Your task to perform on an android device: turn on notifications settings in the gmail app Image 0: 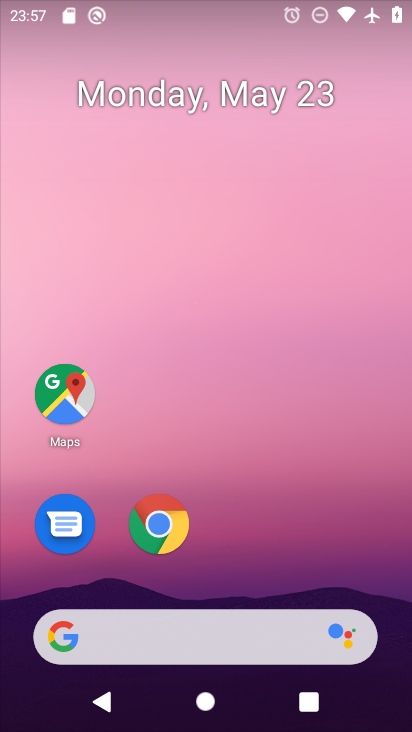
Step 0: drag from (198, 569) to (197, 171)
Your task to perform on an android device: turn on notifications settings in the gmail app Image 1: 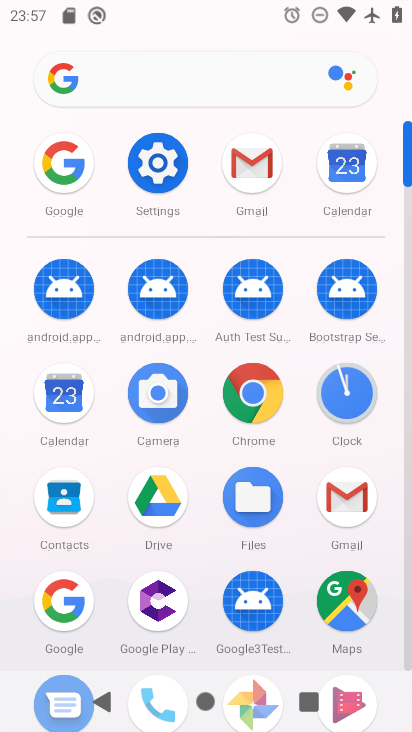
Step 1: click (264, 173)
Your task to perform on an android device: turn on notifications settings in the gmail app Image 2: 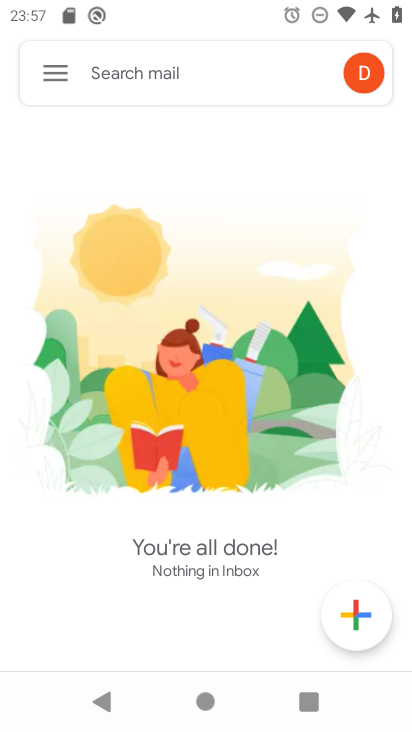
Step 2: click (56, 78)
Your task to perform on an android device: turn on notifications settings in the gmail app Image 3: 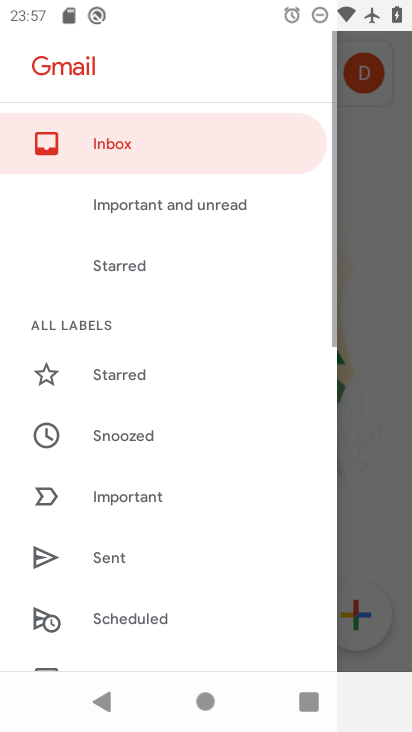
Step 3: drag from (179, 577) to (181, 185)
Your task to perform on an android device: turn on notifications settings in the gmail app Image 4: 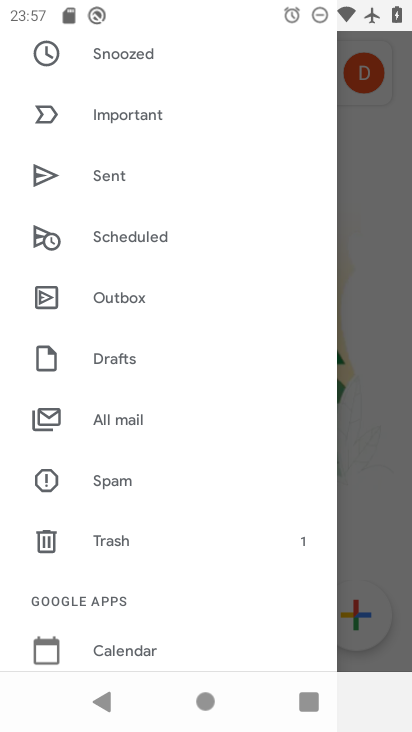
Step 4: drag from (156, 609) to (162, 234)
Your task to perform on an android device: turn on notifications settings in the gmail app Image 5: 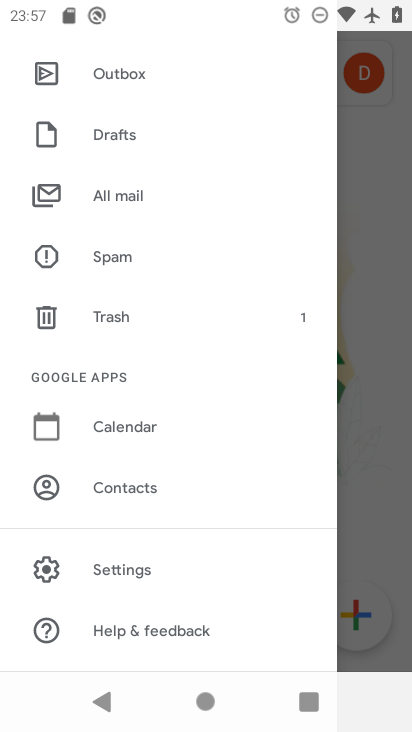
Step 5: click (139, 578)
Your task to perform on an android device: turn on notifications settings in the gmail app Image 6: 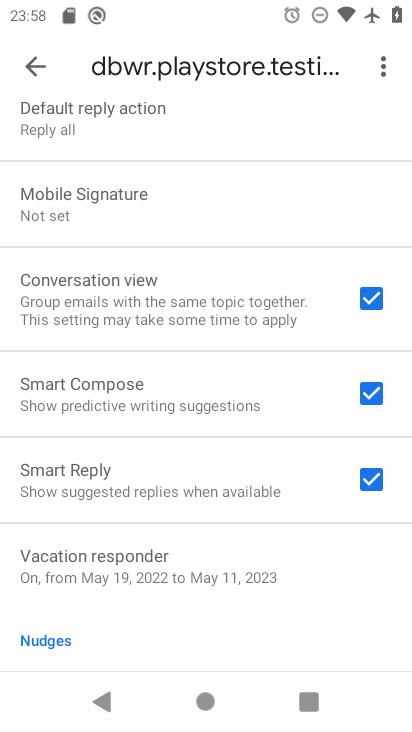
Step 6: drag from (188, 614) to (205, 307)
Your task to perform on an android device: turn on notifications settings in the gmail app Image 7: 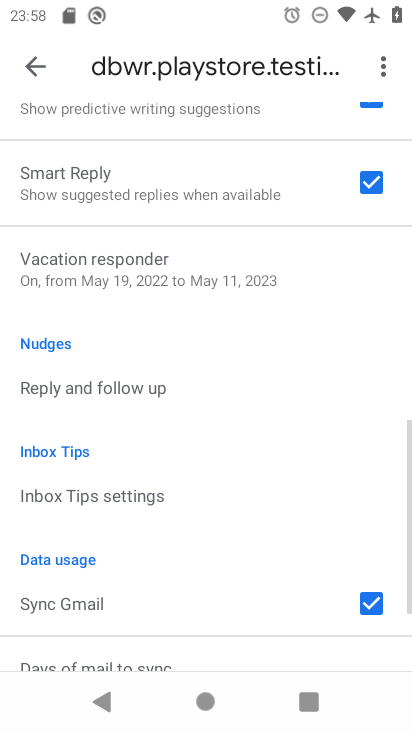
Step 7: drag from (229, 592) to (221, 279)
Your task to perform on an android device: turn on notifications settings in the gmail app Image 8: 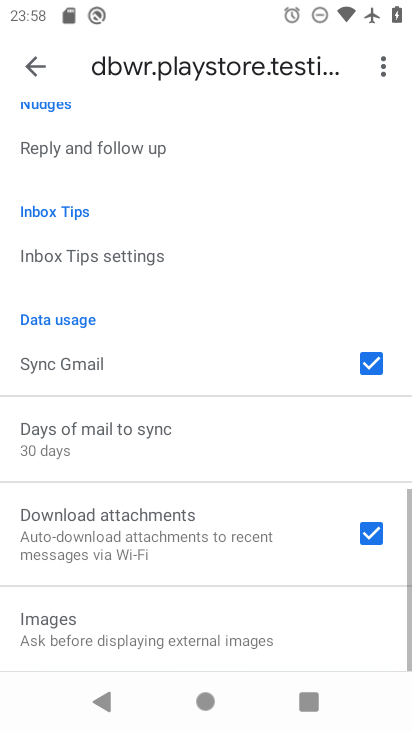
Step 8: drag from (173, 629) to (178, 346)
Your task to perform on an android device: turn on notifications settings in the gmail app Image 9: 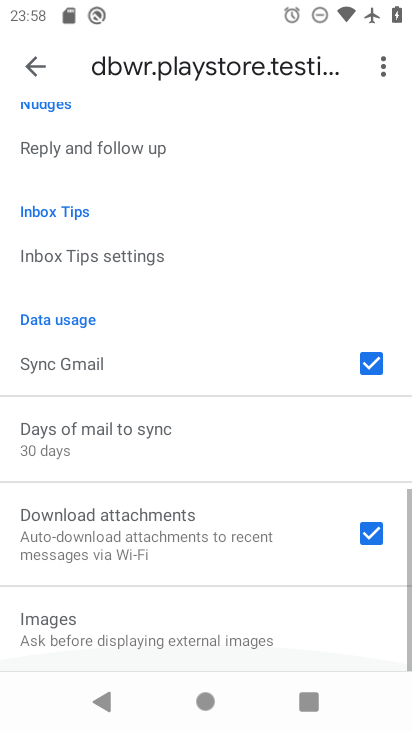
Step 9: drag from (187, 295) to (187, 615)
Your task to perform on an android device: turn on notifications settings in the gmail app Image 10: 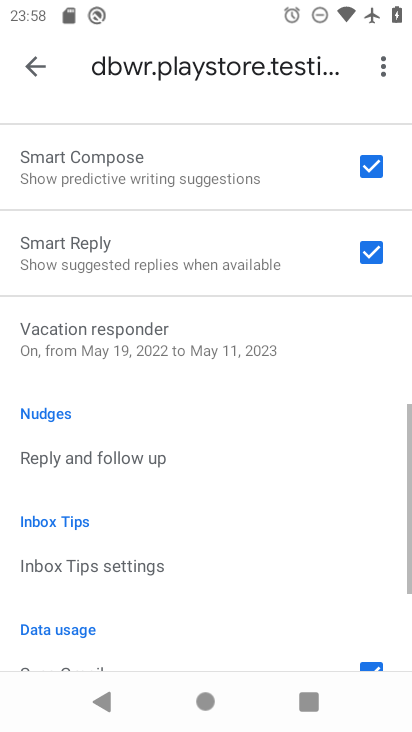
Step 10: drag from (145, 349) to (165, 581)
Your task to perform on an android device: turn on notifications settings in the gmail app Image 11: 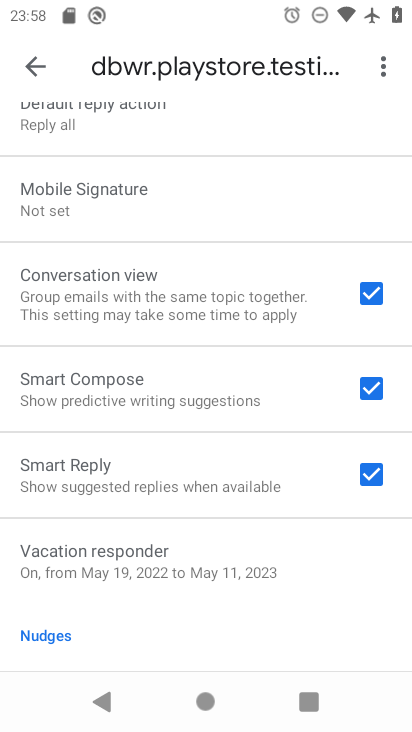
Step 11: drag from (129, 291) to (166, 586)
Your task to perform on an android device: turn on notifications settings in the gmail app Image 12: 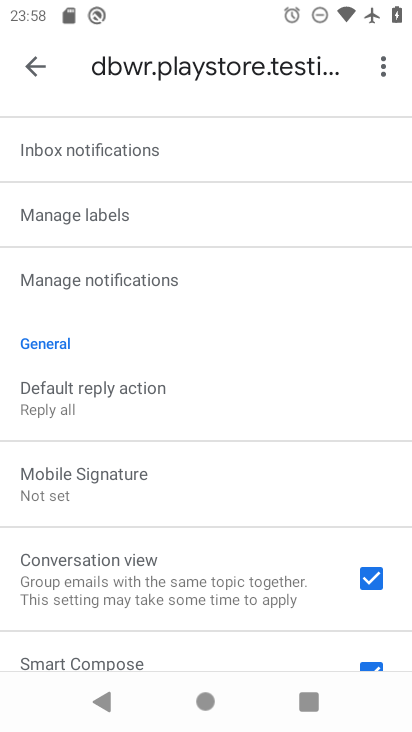
Step 12: click (181, 266)
Your task to perform on an android device: turn on notifications settings in the gmail app Image 13: 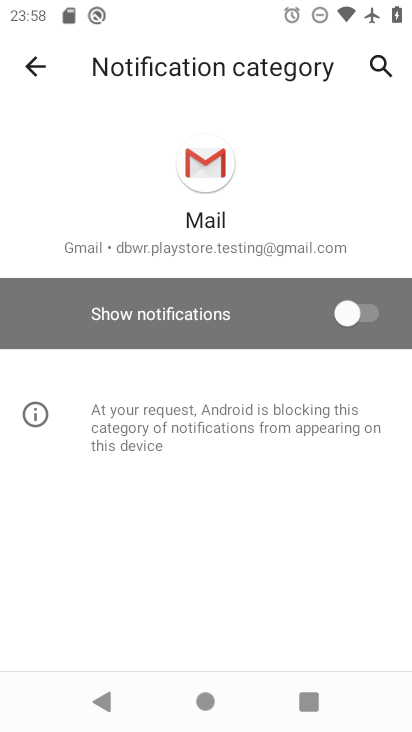
Step 13: click (363, 305)
Your task to perform on an android device: turn on notifications settings in the gmail app Image 14: 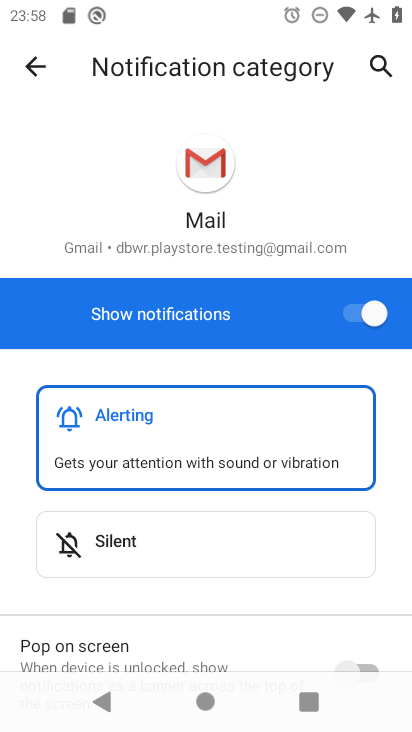
Step 14: task complete